Your task to perform on an android device: turn off sleep mode Image 0: 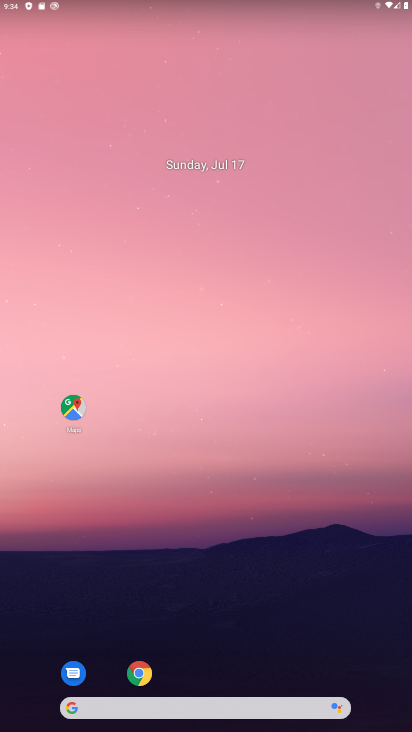
Step 0: drag from (223, 660) to (219, 112)
Your task to perform on an android device: turn off sleep mode Image 1: 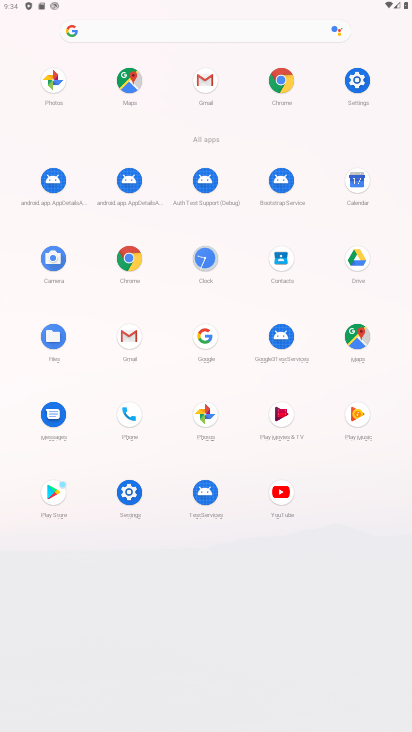
Step 1: click (356, 75)
Your task to perform on an android device: turn off sleep mode Image 2: 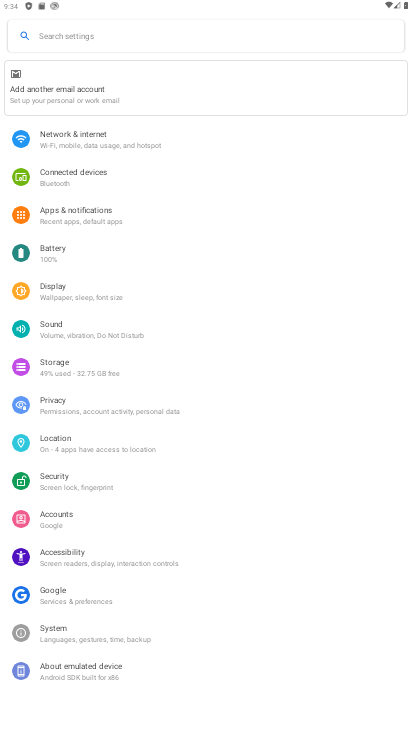
Step 2: click (112, 291)
Your task to perform on an android device: turn off sleep mode Image 3: 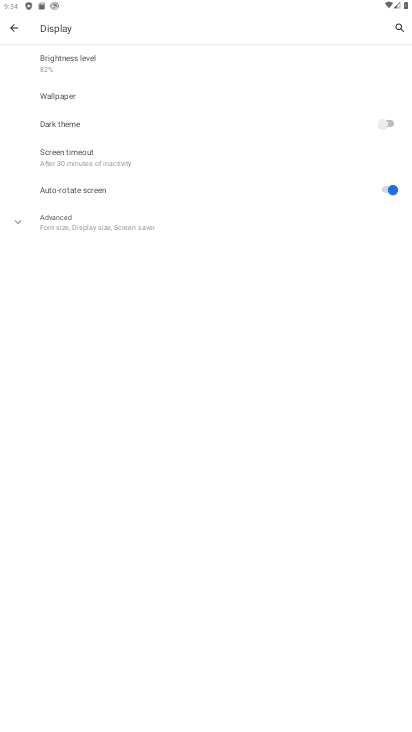
Step 3: click (94, 161)
Your task to perform on an android device: turn off sleep mode Image 4: 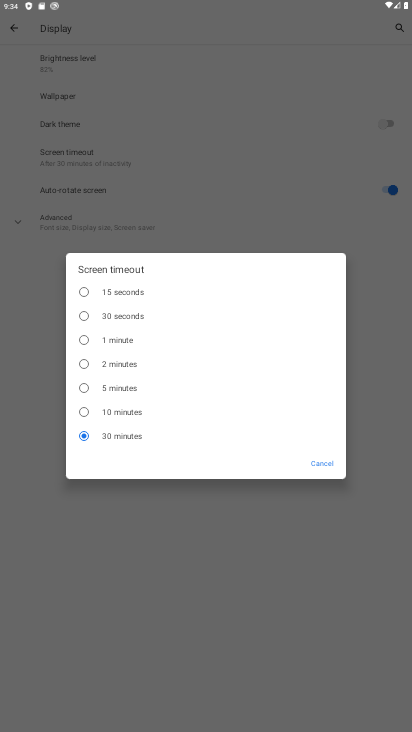
Step 4: click (85, 411)
Your task to perform on an android device: turn off sleep mode Image 5: 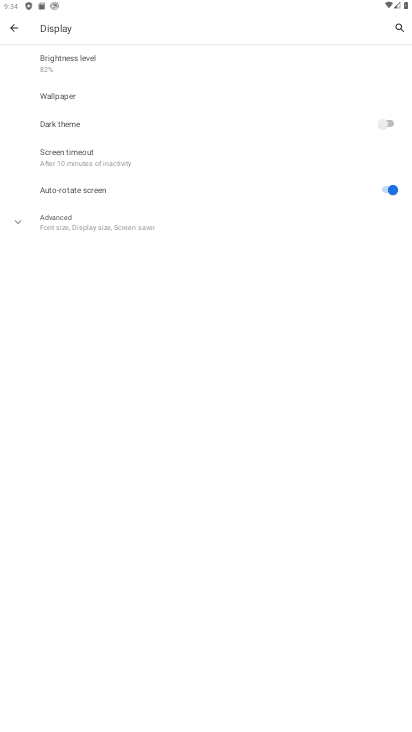
Step 5: task complete